Your task to perform on an android device: Clear the cart on bestbuy.com. Add "usb-c to usb-a" to the cart on bestbuy.com, then select checkout. Image 0: 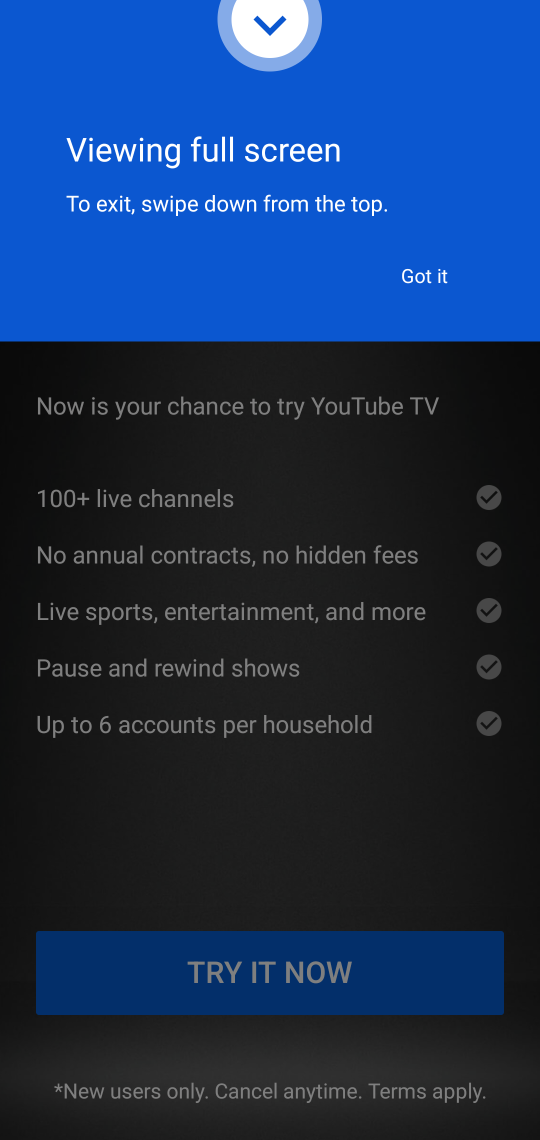
Step 0: press home button
Your task to perform on an android device: Clear the cart on bestbuy.com. Add "usb-c to usb-a" to the cart on bestbuy.com, then select checkout. Image 1: 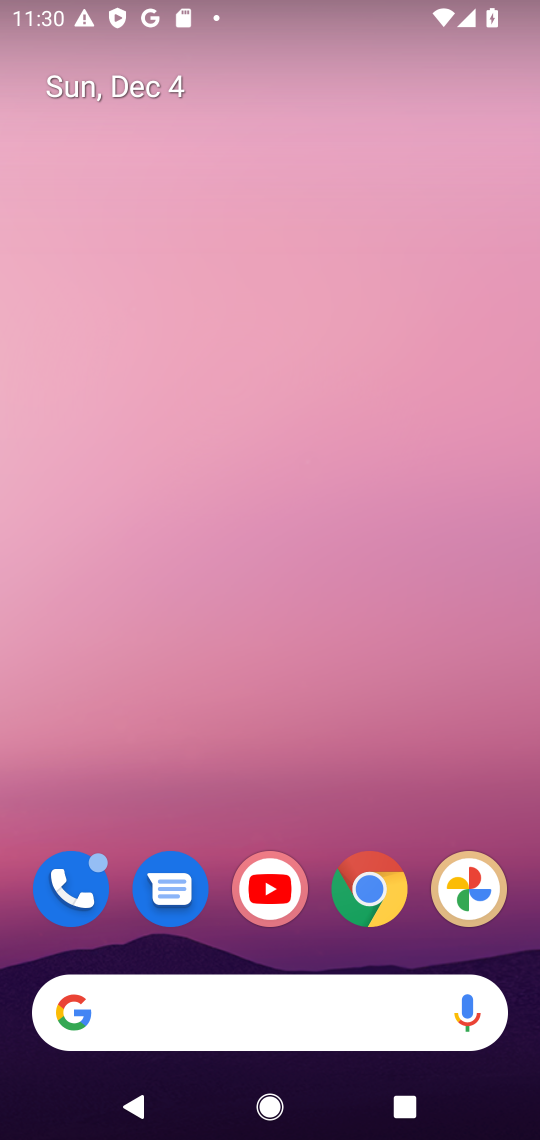
Step 1: click (368, 871)
Your task to perform on an android device: Clear the cart on bestbuy.com. Add "usb-c to usb-a" to the cart on bestbuy.com, then select checkout. Image 2: 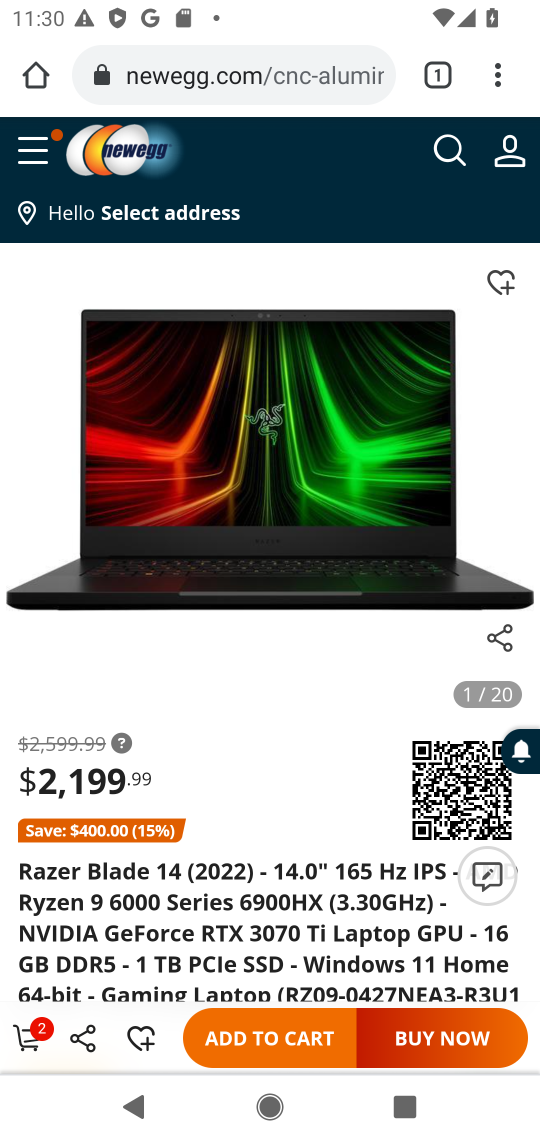
Step 2: click (375, 77)
Your task to perform on an android device: Clear the cart on bestbuy.com. Add "usb-c to usb-a" to the cart on bestbuy.com, then select checkout. Image 3: 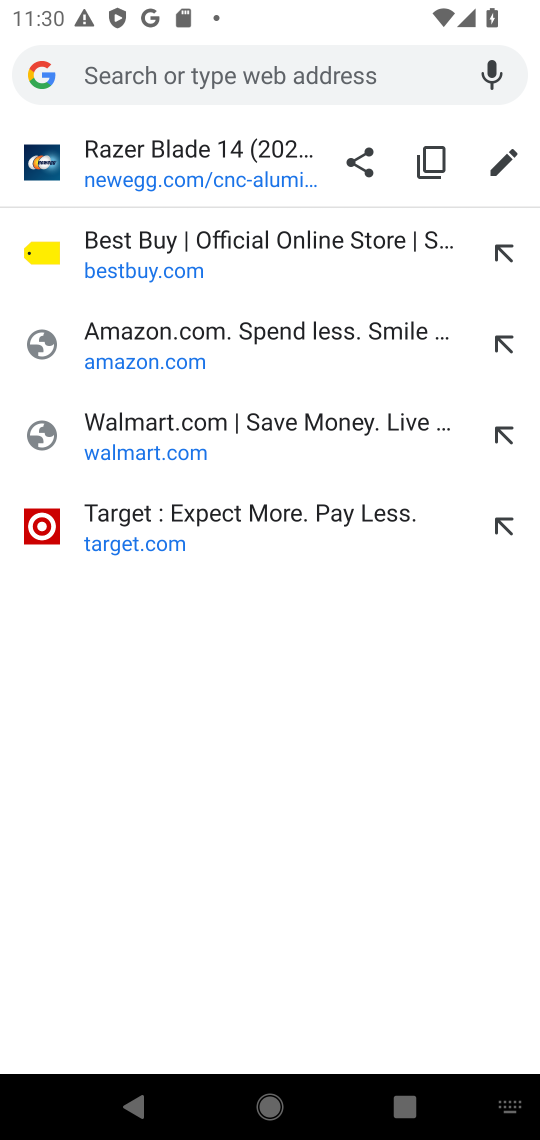
Step 3: click (212, 240)
Your task to perform on an android device: Clear the cart on bestbuy.com. Add "usb-c to usb-a" to the cart on bestbuy.com, then select checkout. Image 4: 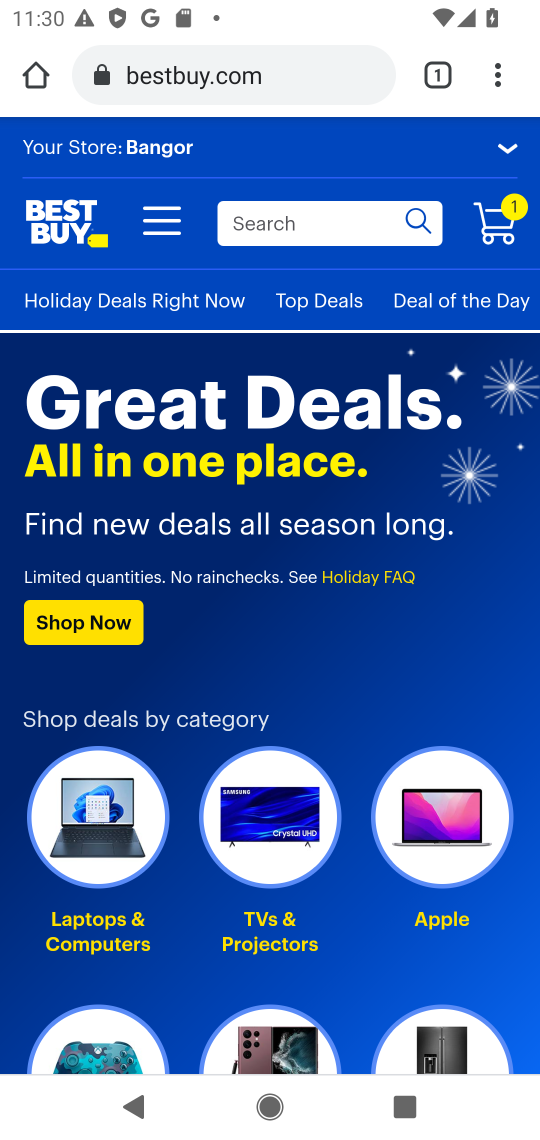
Step 4: click (504, 229)
Your task to perform on an android device: Clear the cart on bestbuy.com. Add "usb-c to usb-a" to the cart on bestbuy.com, then select checkout. Image 5: 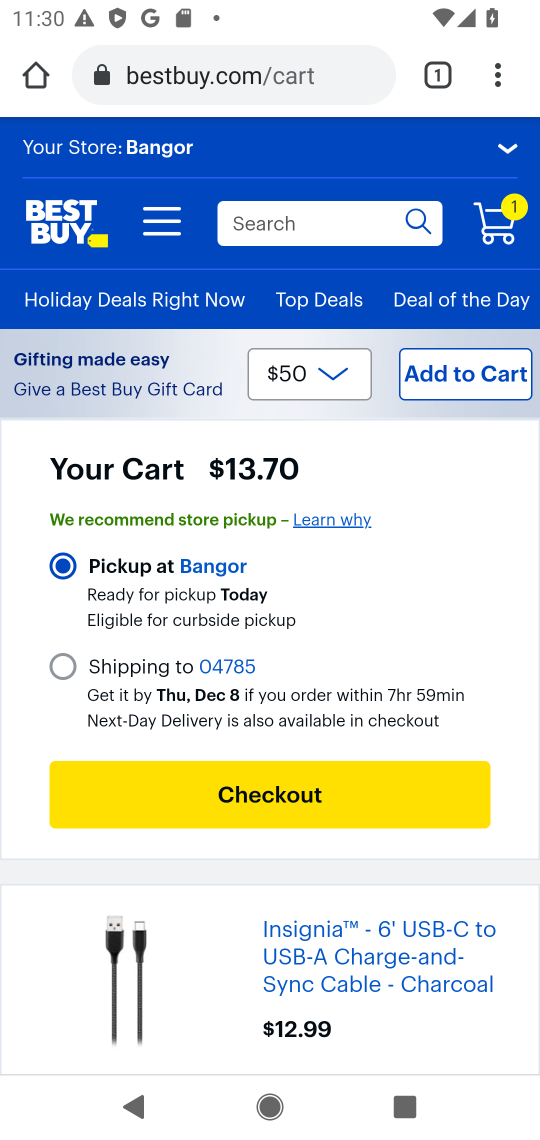
Step 5: drag from (459, 894) to (402, 348)
Your task to perform on an android device: Clear the cart on bestbuy.com. Add "usb-c to usb-a" to the cart on bestbuy.com, then select checkout. Image 6: 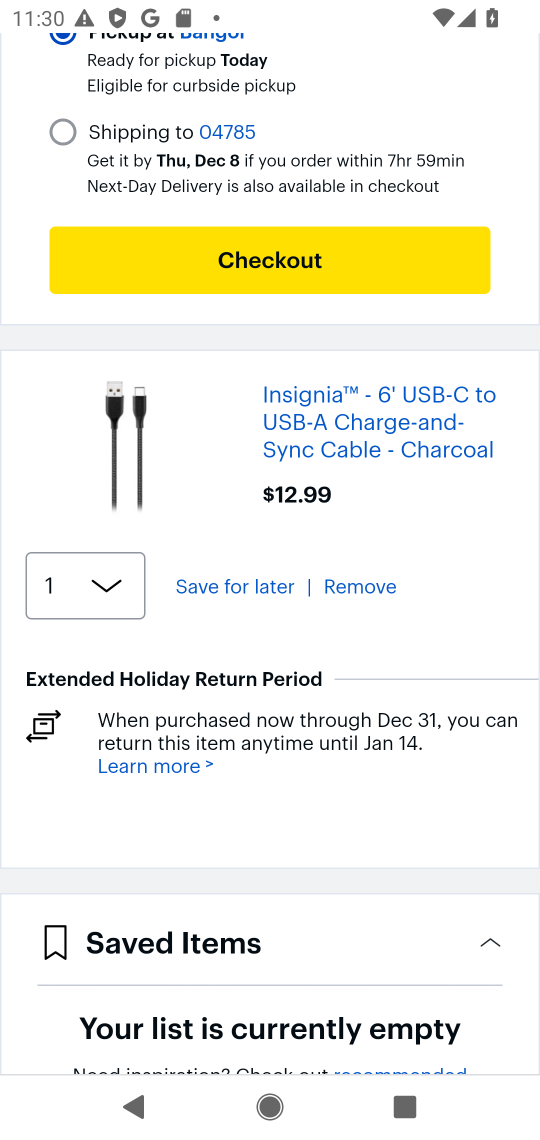
Step 6: click (355, 587)
Your task to perform on an android device: Clear the cart on bestbuy.com. Add "usb-c to usb-a" to the cart on bestbuy.com, then select checkout. Image 7: 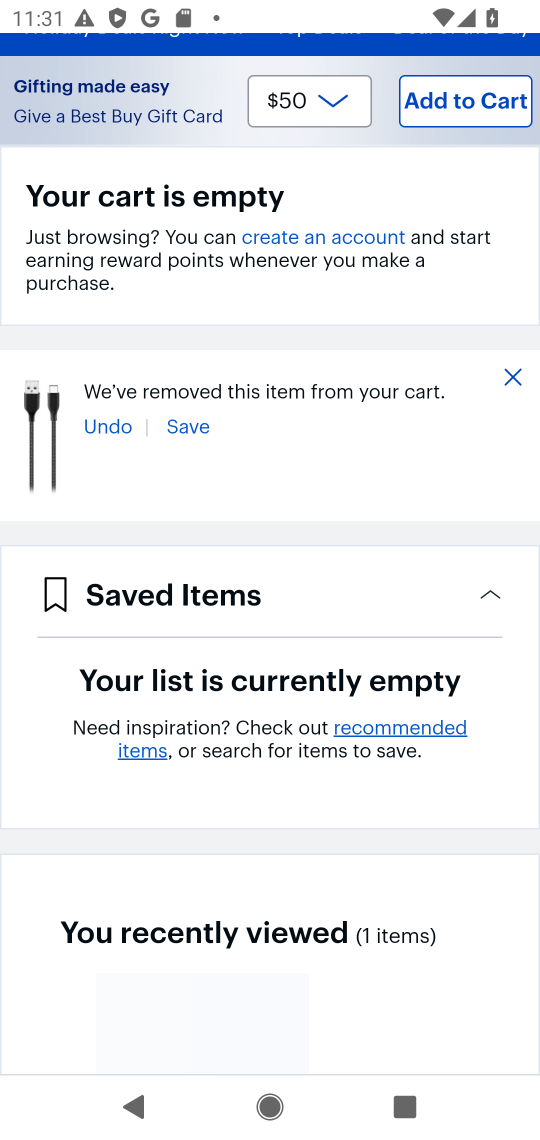
Step 7: click (498, 563)
Your task to perform on an android device: Clear the cart on bestbuy.com. Add "usb-c to usb-a" to the cart on bestbuy.com, then select checkout. Image 8: 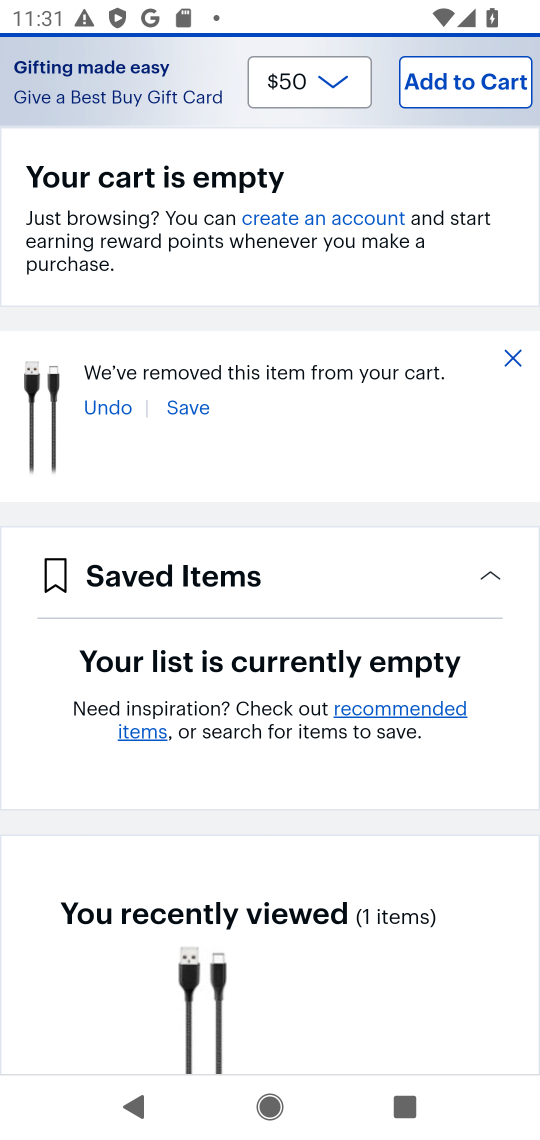
Step 8: click (516, 359)
Your task to perform on an android device: Clear the cart on bestbuy.com. Add "usb-c to usb-a" to the cart on bestbuy.com, then select checkout. Image 9: 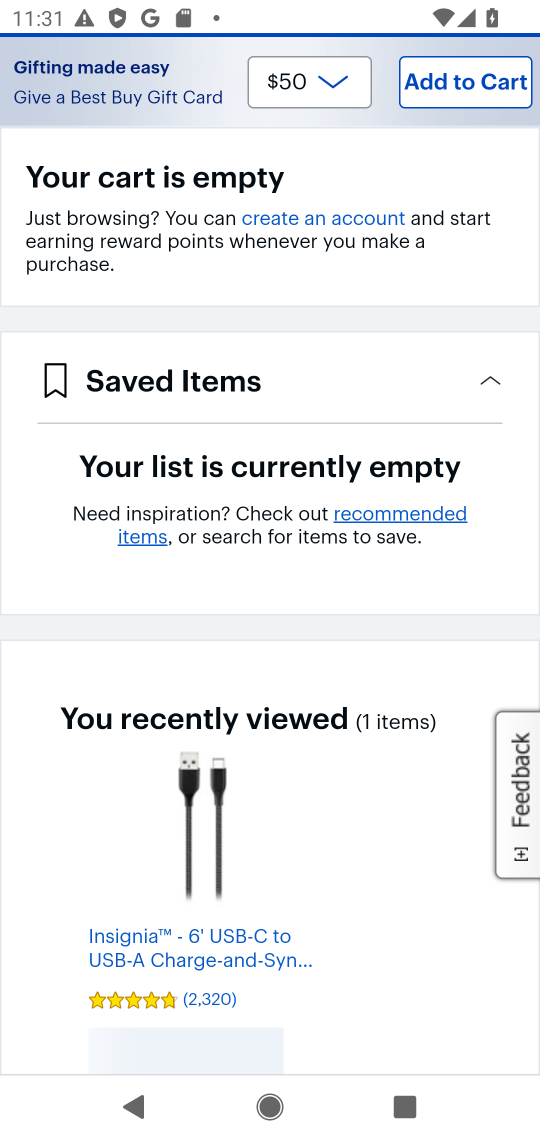
Step 9: drag from (454, 153) to (537, 1033)
Your task to perform on an android device: Clear the cart on bestbuy.com. Add "usb-c to usb-a" to the cart on bestbuy.com, then select checkout. Image 10: 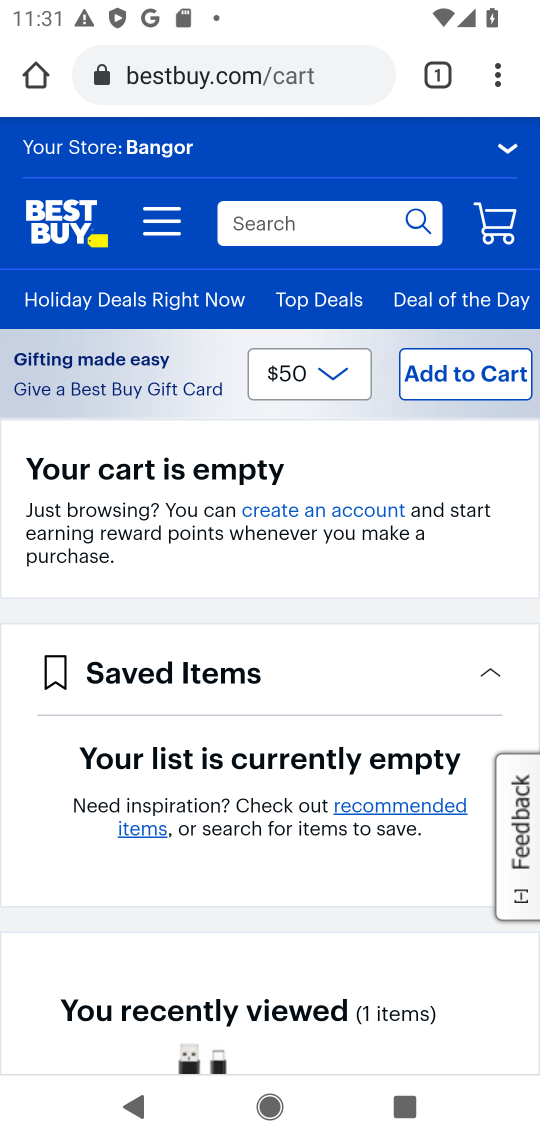
Step 10: click (317, 223)
Your task to perform on an android device: Clear the cart on bestbuy.com. Add "usb-c to usb-a" to the cart on bestbuy.com, then select checkout. Image 11: 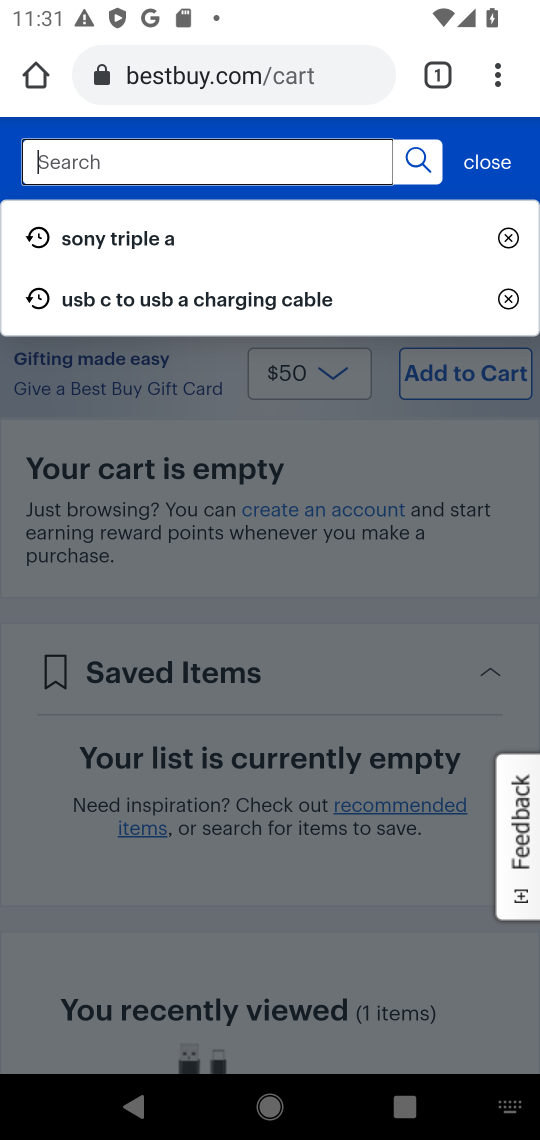
Step 11: type "usb-c to usb-a"
Your task to perform on an android device: Clear the cart on bestbuy.com. Add "usb-c to usb-a" to the cart on bestbuy.com, then select checkout. Image 12: 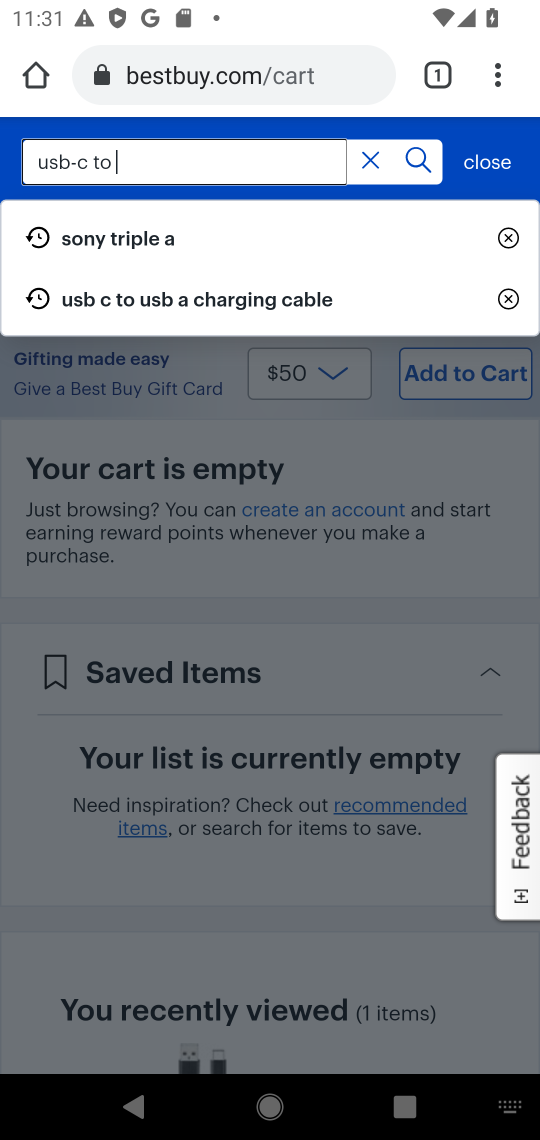
Step 12: press enter
Your task to perform on an android device: Clear the cart on bestbuy.com. Add "usb-c to usb-a" to the cart on bestbuy.com, then select checkout. Image 13: 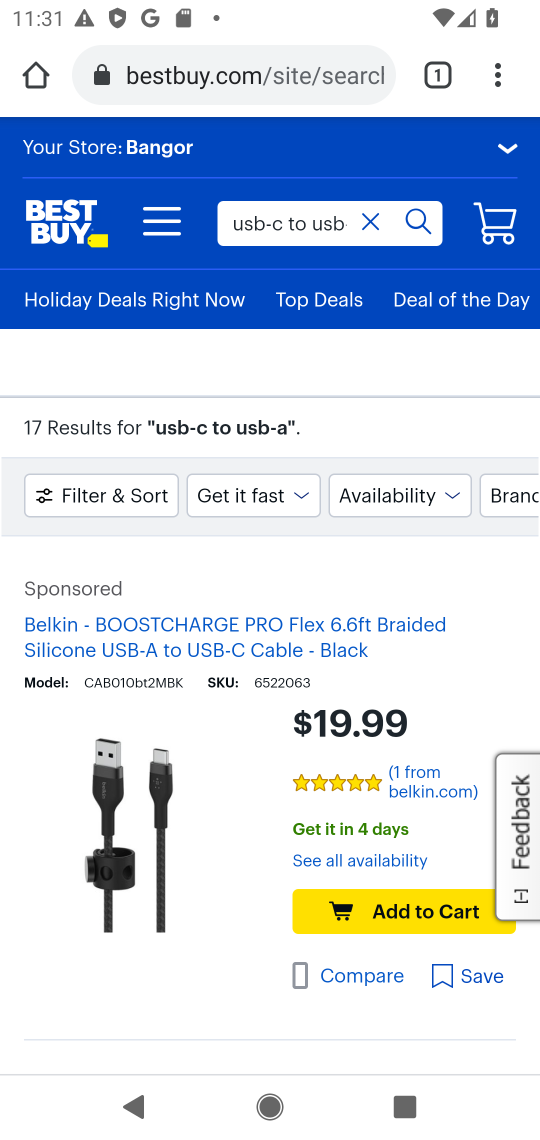
Step 13: click (167, 857)
Your task to perform on an android device: Clear the cart on bestbuy.com. Add "usb-c to usb-a" to the cart on bestbuy.com, then select checkout. Image 14: 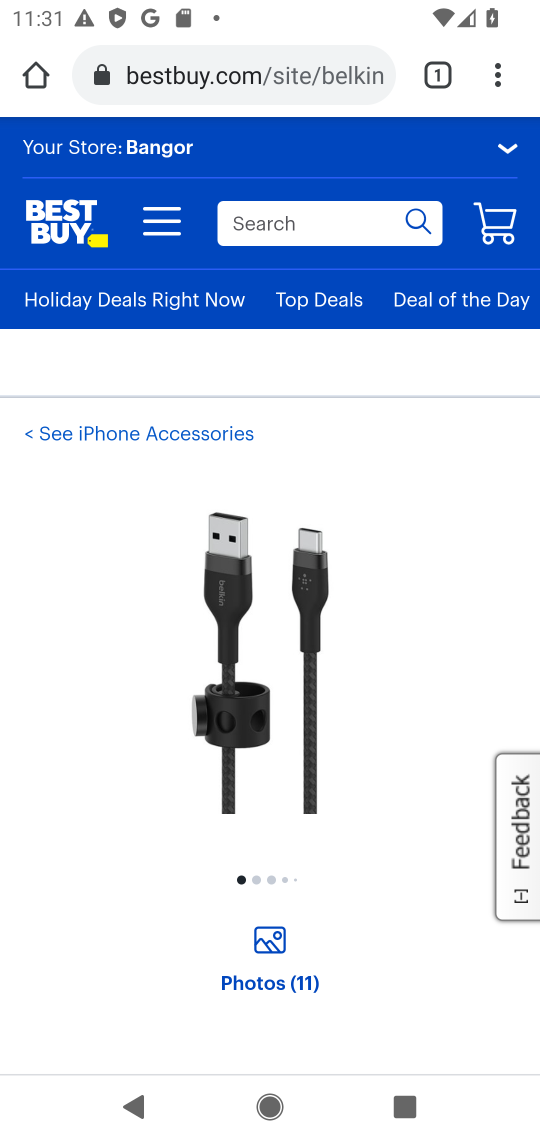
Step 14: drag from (158, 923) to (220, 100)
Your task to perform on an android device: Clear the cart on bestbuy.com. Add "usb-c to usb-a" to the cart on bestbuy.com, then select checkout. Image 15: 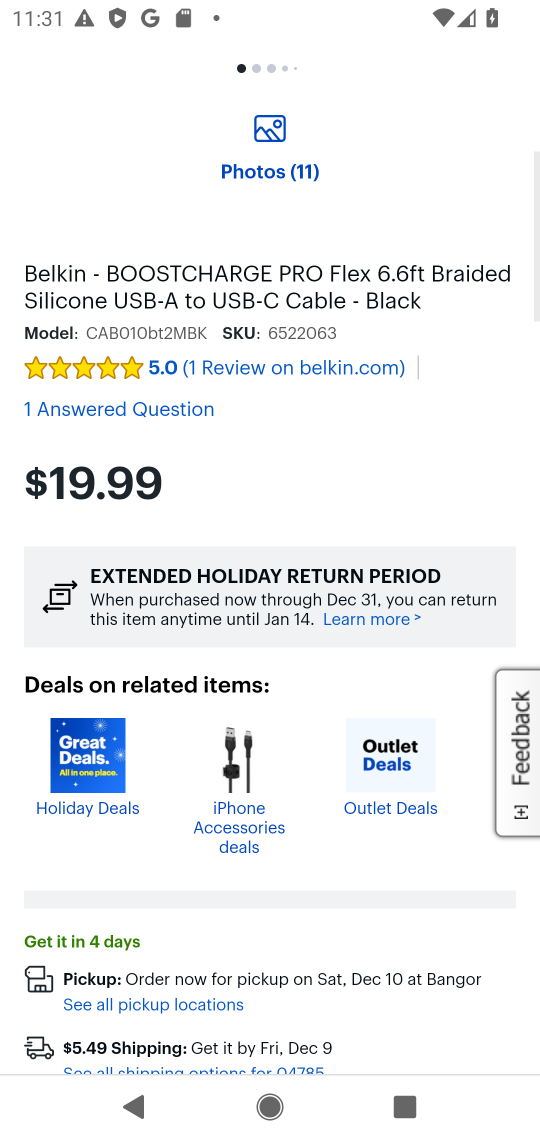
Step 15: drag from (338, 876) to (330, 171)
Your task to perform on an android device: Clear the cart on bestbuy.com. Add "usb-c to usb-a" to the cart on bestbuy.com, then select checkout. Image 16: 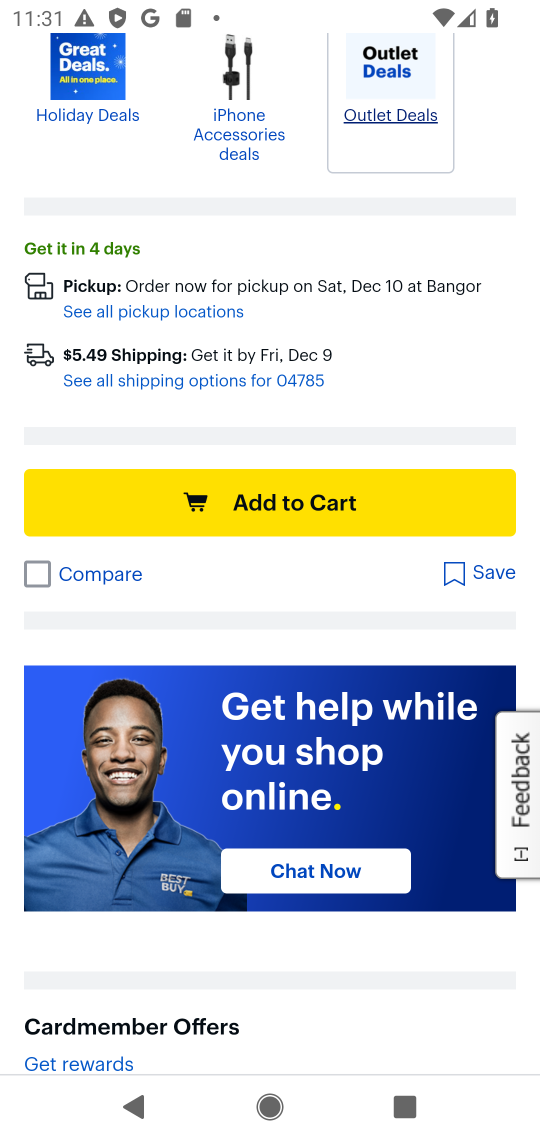
Step 16: click (321, 497)
Your task to perform on an android device: Clear the cart on bestbuy.com. Add "usb-c to usb-a" to the cart on bestbuy.com, then select checkout. Image 17: 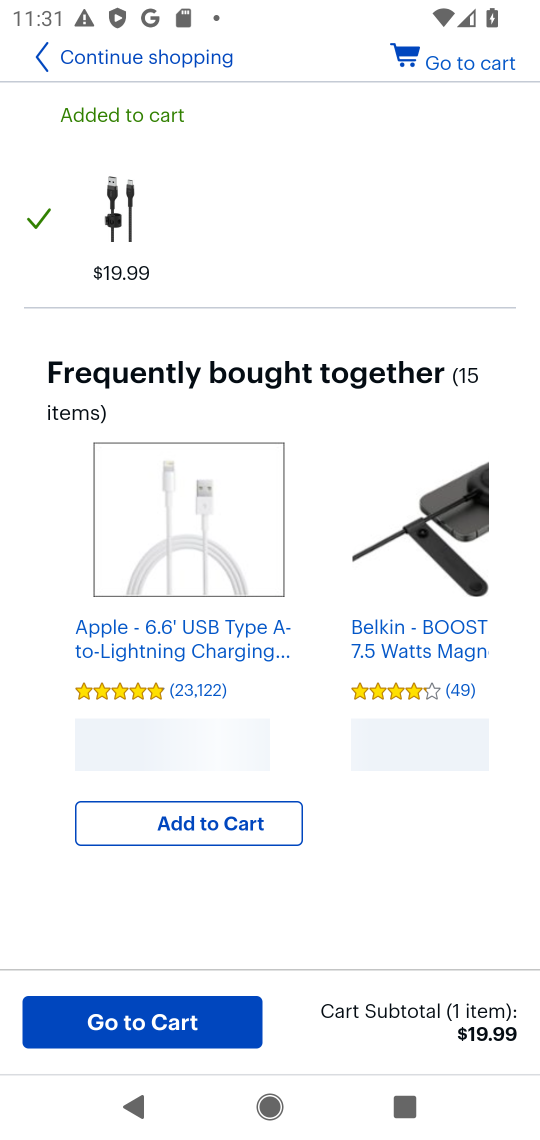
Step 17: click (180, 1022)
Your task to perform on an android device: Clear the cart on bestbuy.com. Add "usb-c to usb-a" to the cart on bestbuy.com, then select checkout. Image 18: 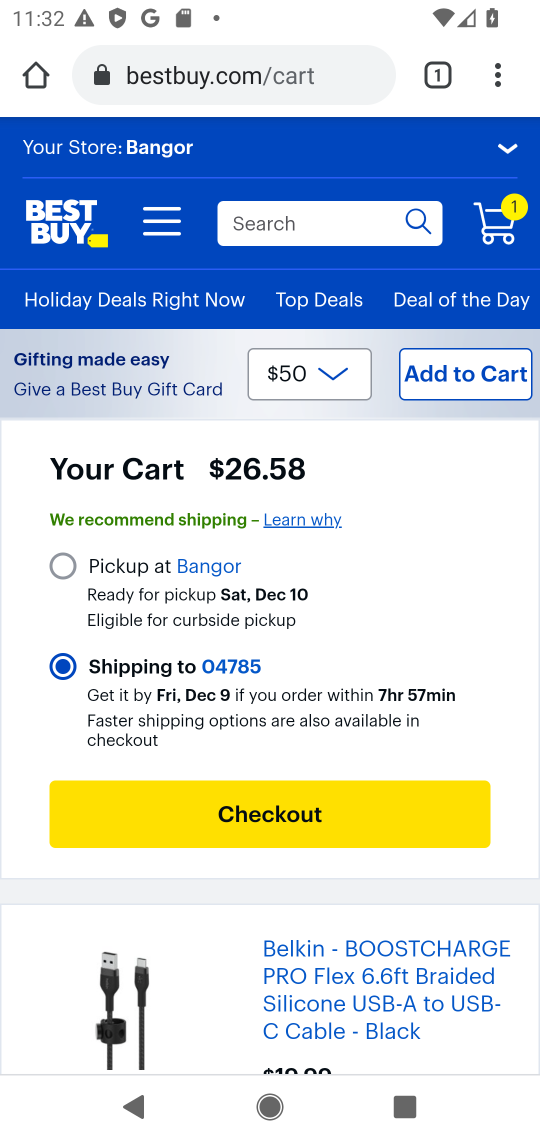
Step 18: click (303, 804)
Your task to perform on an android device: Clear the cart on bestbuy.com. Add "usb-c to usb-a" to the cart on bestbuy.com, then select checkout. Image 19: 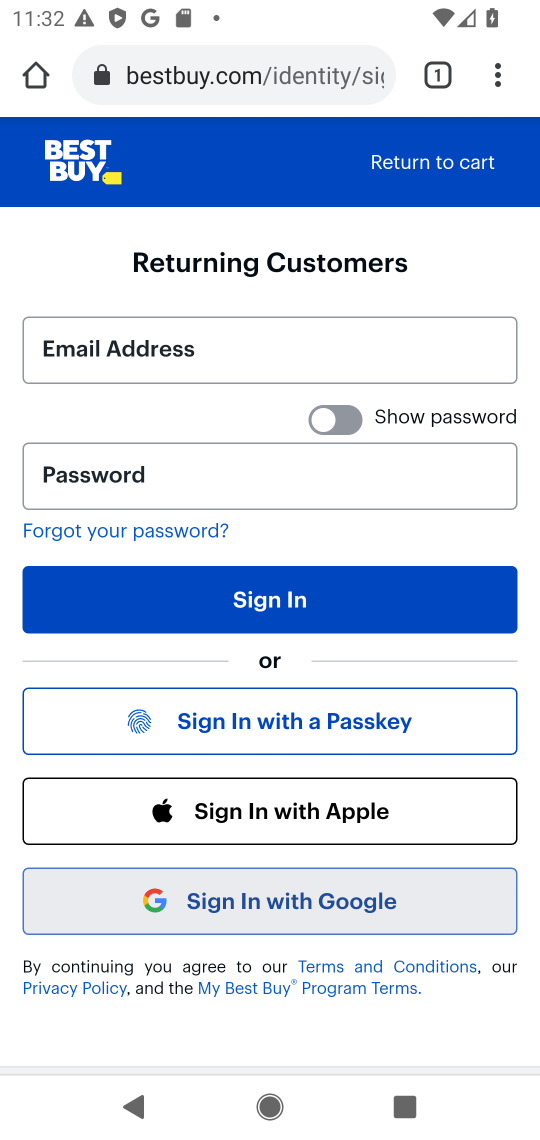
Step 19: task complete